Your task to perform on an android device: turn off notifications settings in the gmail app Image 0: 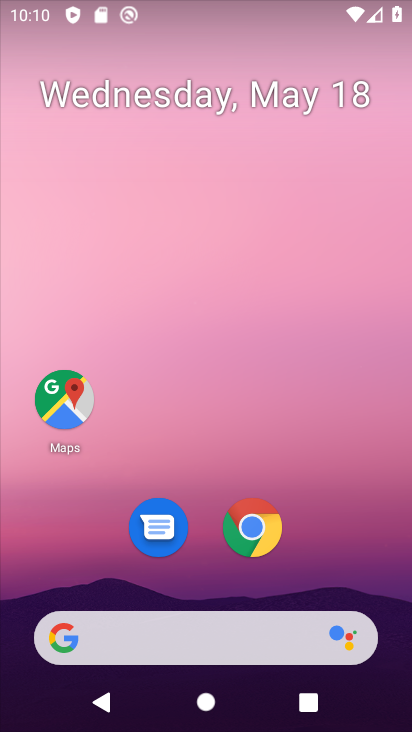
Step 0: drag from (346, 552) to (63, 20)
Your task to perform on an android device: turn off notifications settings in the gmail app Image 1: 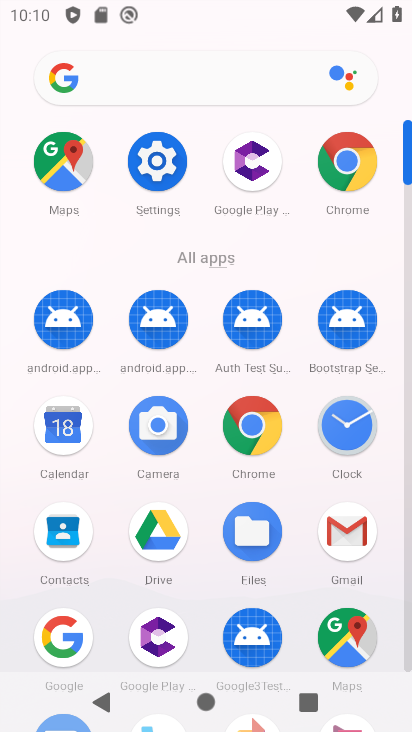
Step 1: click (347, 568)
Your task to perform on an android device: turn off notifications settings in the gmail app Image 2: 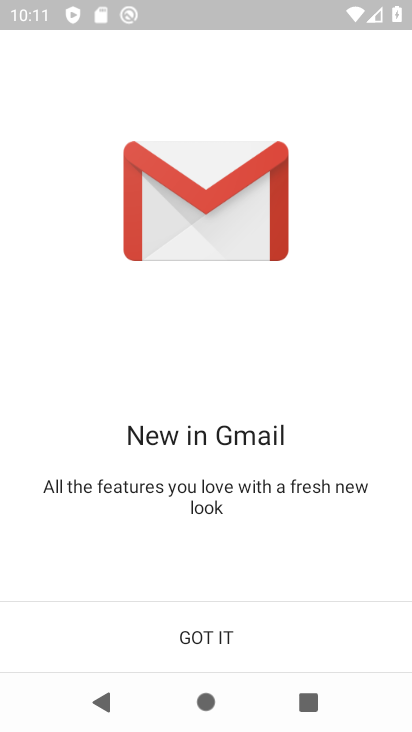
Step 2: click (274, 625)
Your task to perform on an android device: turn off notifications settings in the gmail app Image 3: 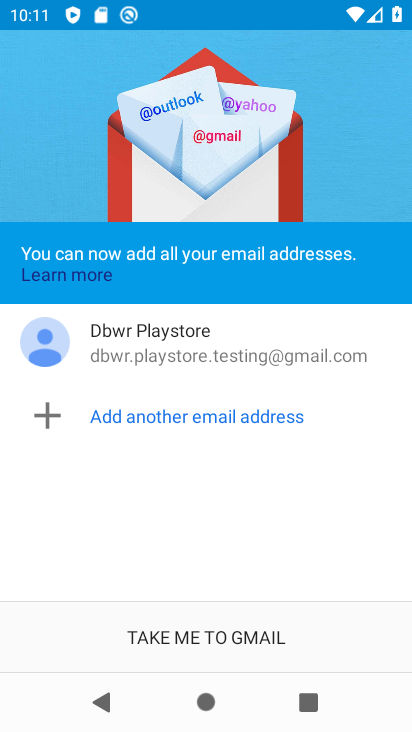
Step 3: click (273, 625)
Your task to perform on an android device: turn off notifications settings in the gmail app Image 4: 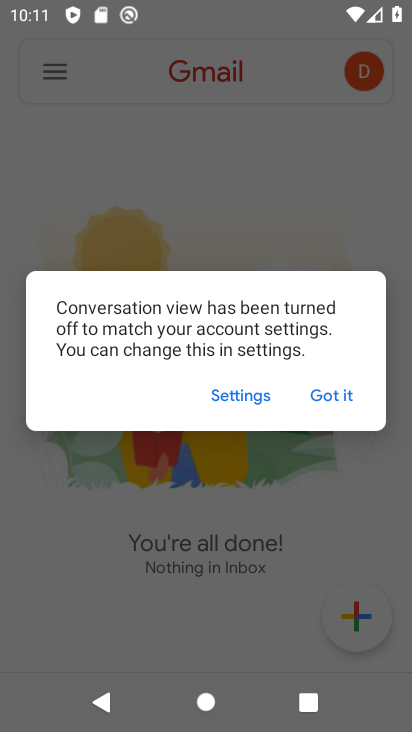
Step 4: click (343, 389)
Your task to perform on an android device: turn off notifications settings in the gmail app Image 5: 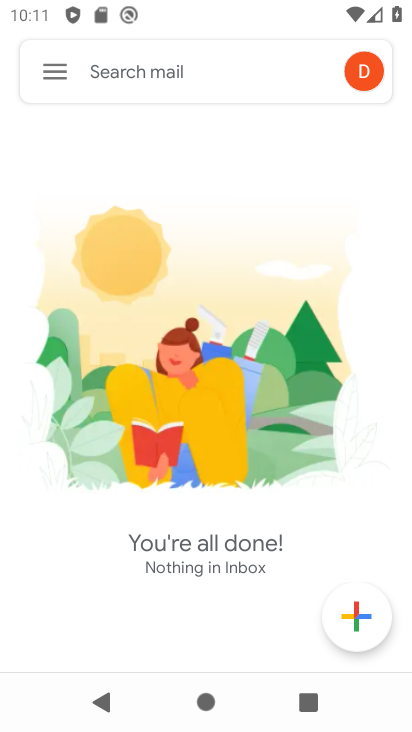
Step 5: click (61, 66)
Your task to perform on an android device: turn off notifications settings in the gmail app Image 6: 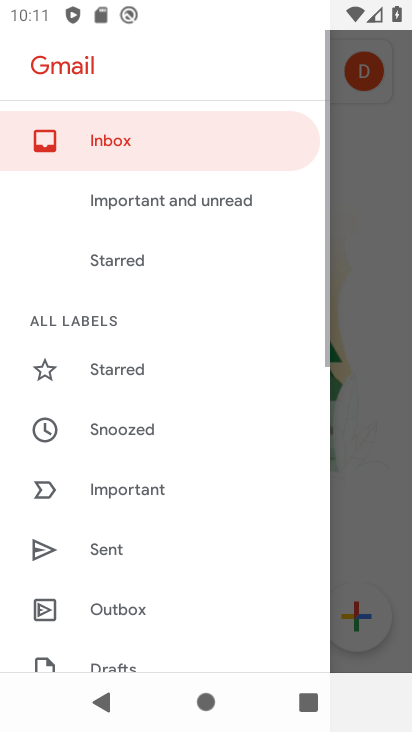
Step 6: drag from (140, 624) to (145, 458)
Your task to perform on an android device: turn off notifications settings in the gmail app Image 7: 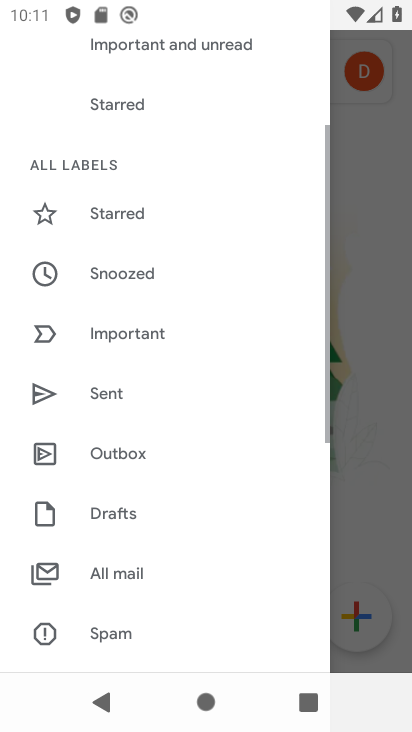
Step 7: drag from (154, 625) to (200, 213)
Your task to perform on an android device: turn off notifications settings in the gmail app Image 8: 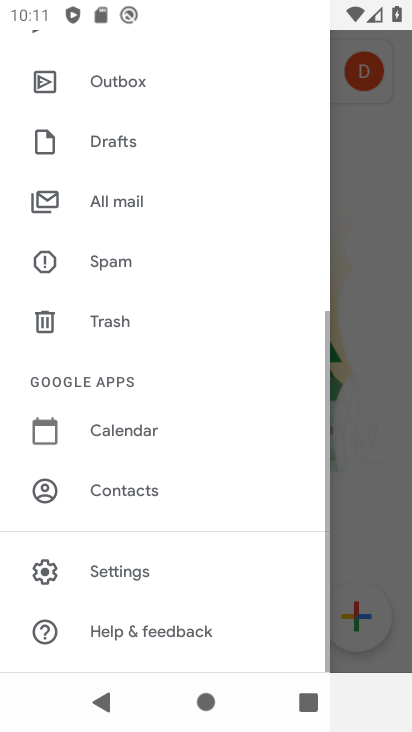
Step 8: click (150, 568)
Your task to perform on an android device: turn off notifications settings in the gmail app Image 9: 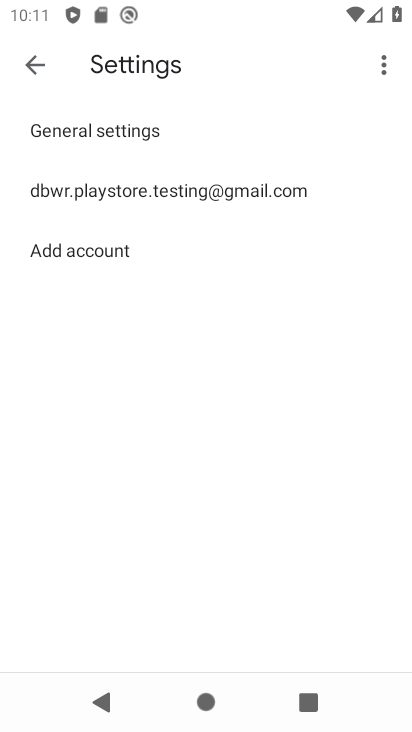
Step 9: click (125, 148)
Your task to perform on an android device: turn off notifications settings in the gmail app Image 10: 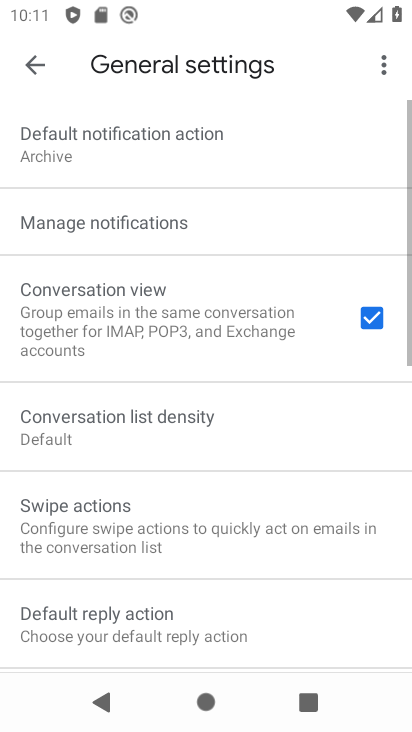
Step 10: click (94, 241)
Your task to perform on an android device: turn off notifications settings in the gmail app Image 11: 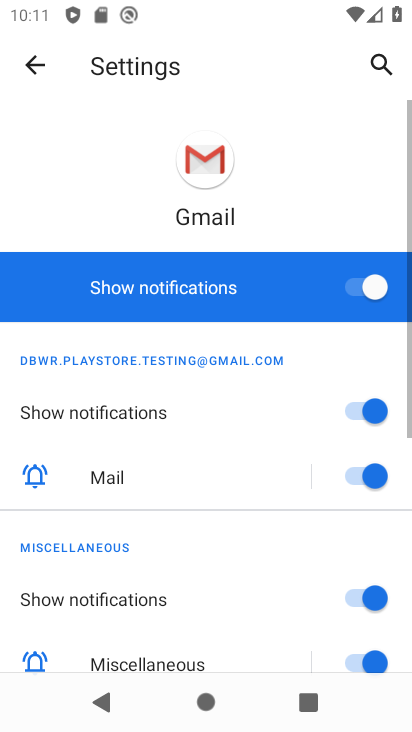
Step 11: click (363, 291)
Your task to perform on an android device: turn off notifications settings in the gmail app Image 12: 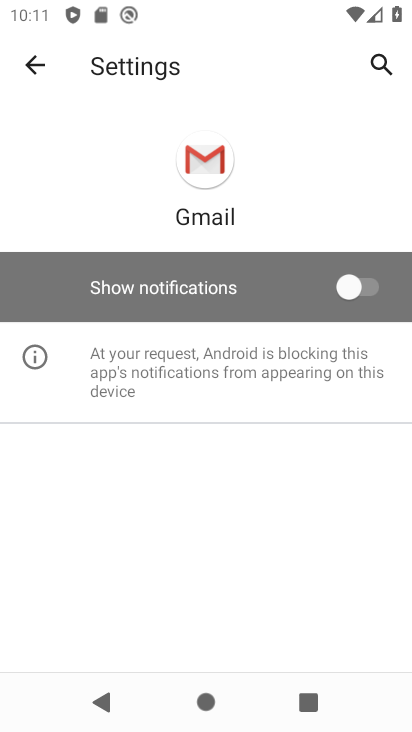
Step 12: task complete